Your task to perform on an android device: snooze an email in the gmail app Image 0: 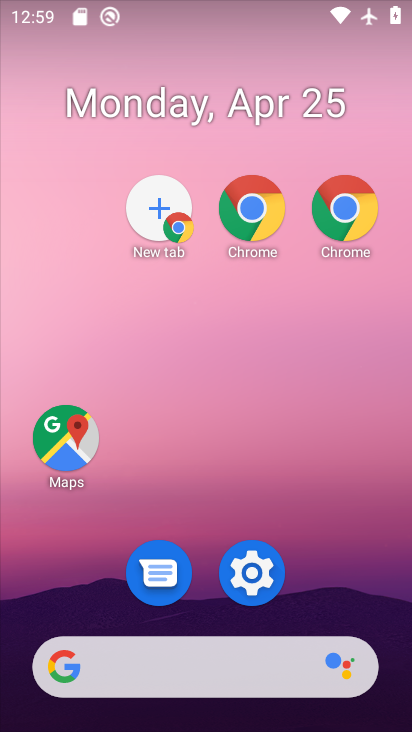
Step 0: drag from (332, 721) to (110, 39)
Your task to perform on an android device: snooze an email in the gmail app Image 1: 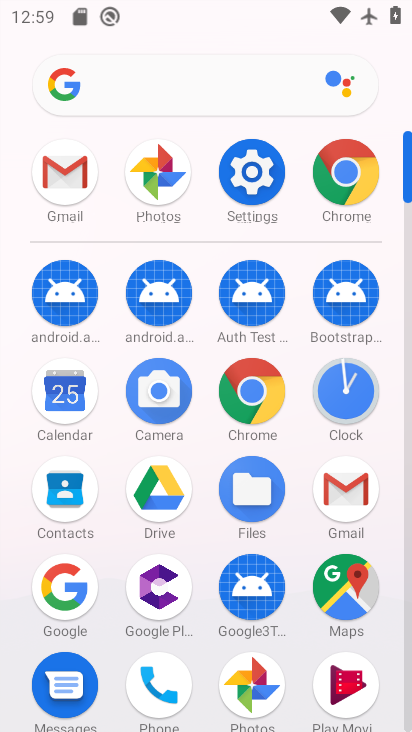
Step 1: click (335, 491)
Your task to perform on an android device: snooze an email in the gmail app Image 2: 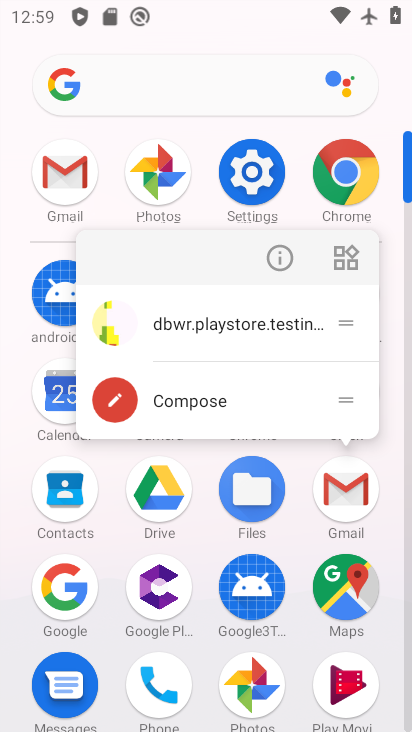
Step 2: click (335, 491)
Your task to perform on an android device: snooze an email in the gmail app Image 3: 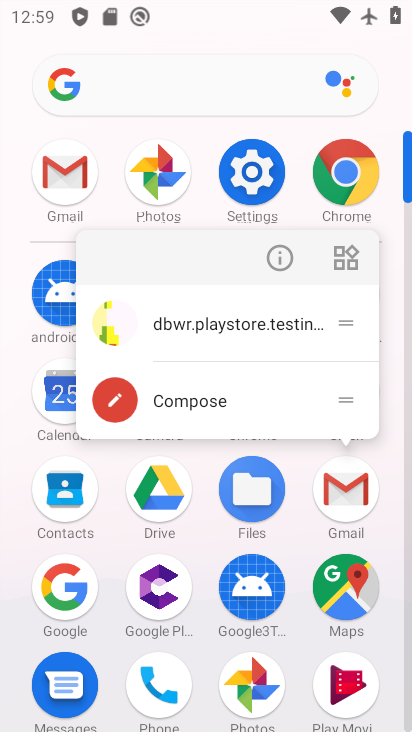
Step 3: click (335, 491)
Your task to perform on an android device: snooze an email in the gmail app Image 4: 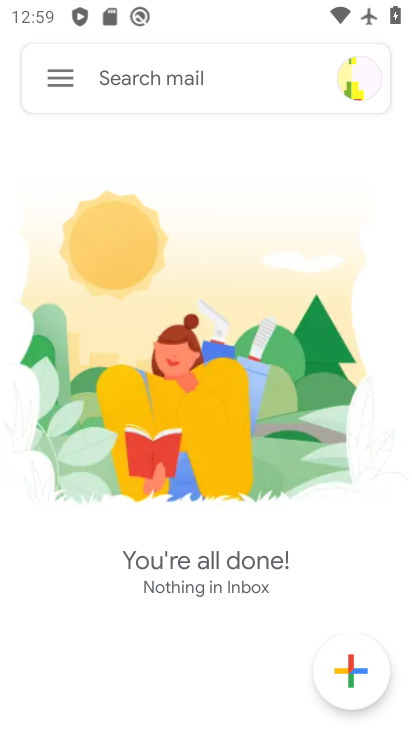
Step 4: click (71, 82)
Your task to perform on an android device: snooze an email in the gmail app Image 5: 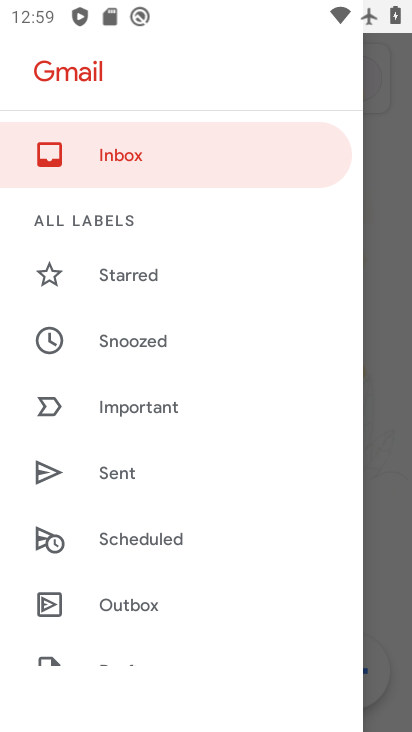
Step 5: click (151, 345)
Your task to perform on an android device: snooze an email in the gmail app Image 6: 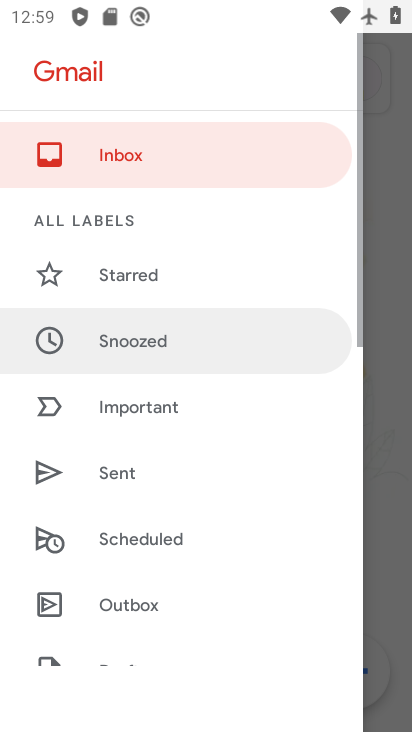
Step 6: click (152, 344)
Your task to perform on an android device: snooze an email in the gmail app Image 7: 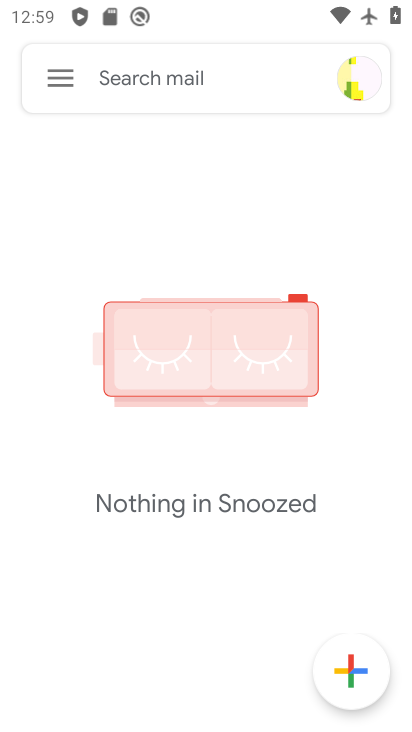
Step 7: task complete